Your task to perform on an android device: check battery use Image 0: 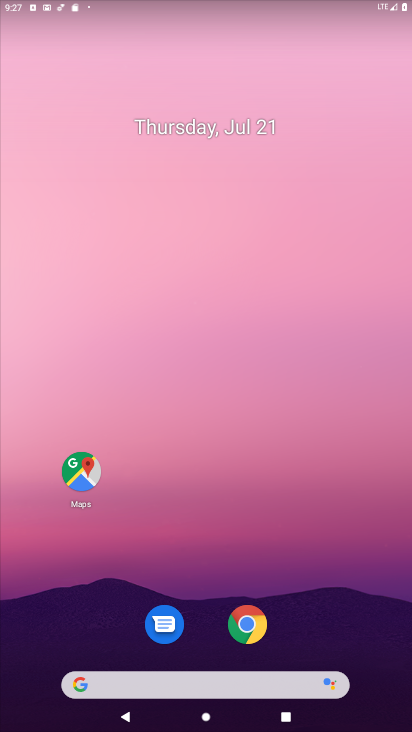
Step 0: task complete